Your task to perform on an android device: add a label to a message in the gmail app Image 0: 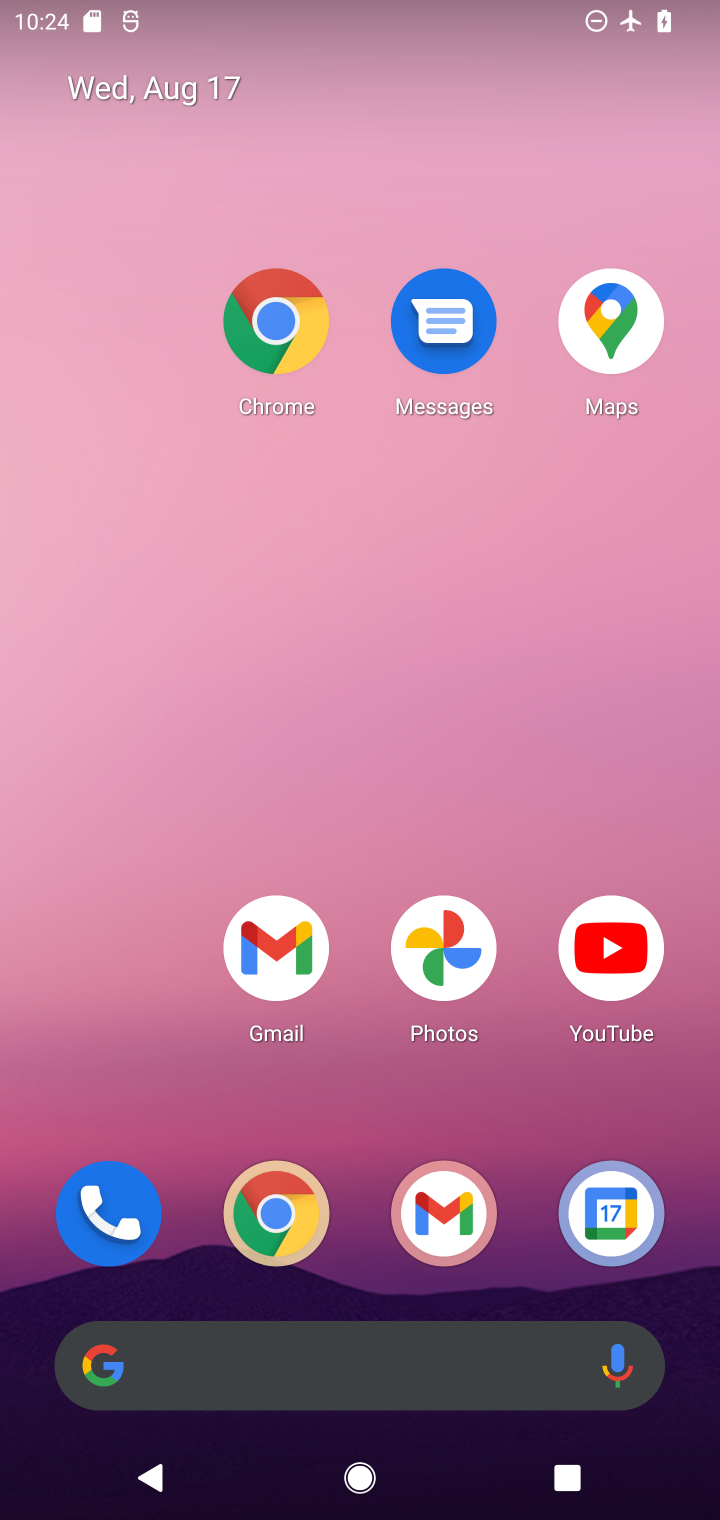
Step 0: click (463, 1199)
Your task to perform on an android device: add a label to a message in the gmail app Image 1: 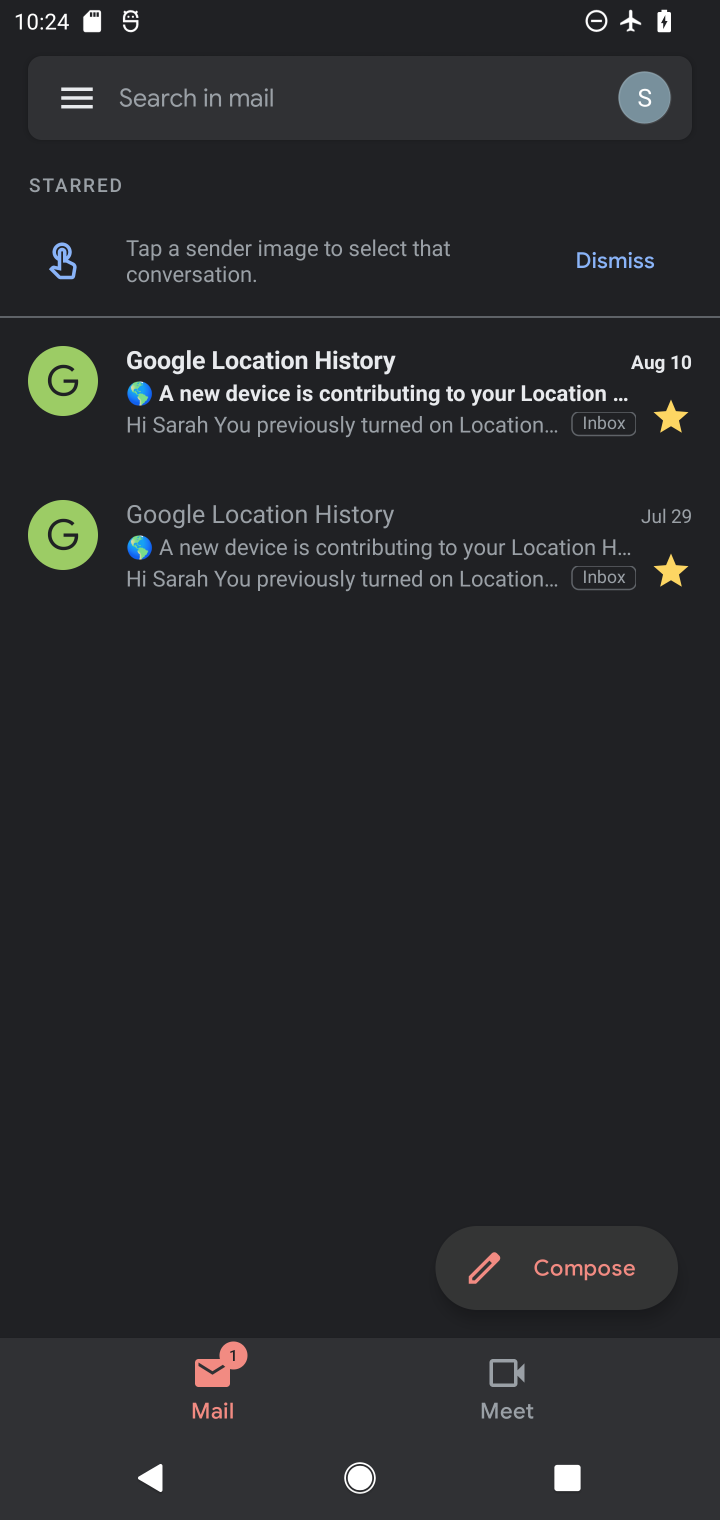
Step 1: click (77, 131)
Your task to perform on an android device: add a label to a message in the gmail app Image 2: 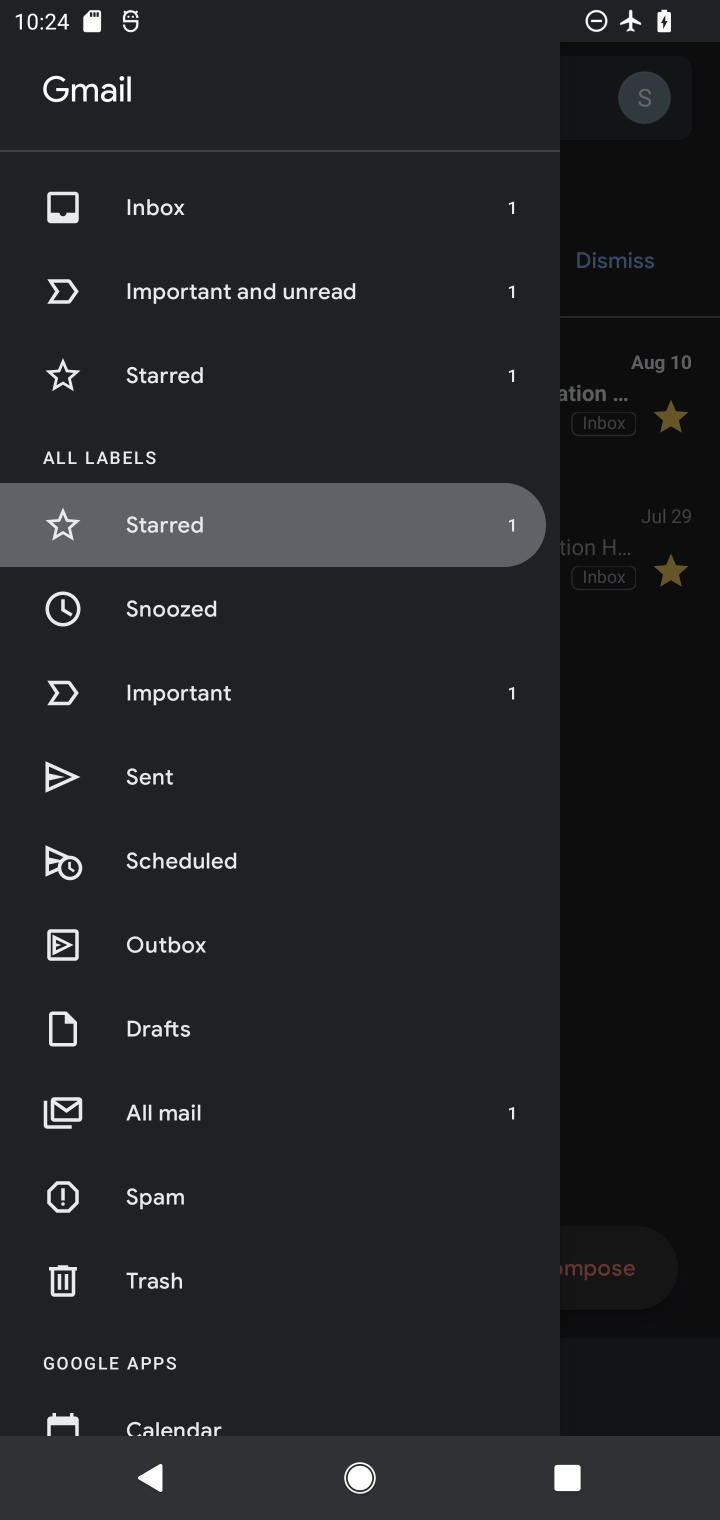
Step 2: task complete